Your task to perform on an android device: choose inbox layout in the gmail app Image 0: 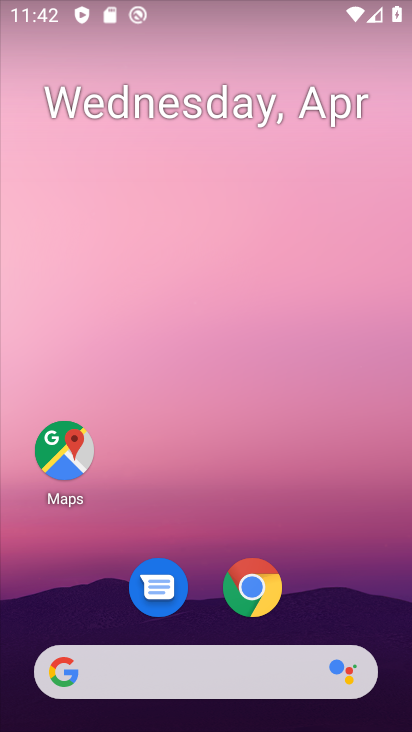
Step 0: drag from (207, 614) to (333, 0)
Your task to perform on an android device: choose inbox layout in the gmail app Image 1: 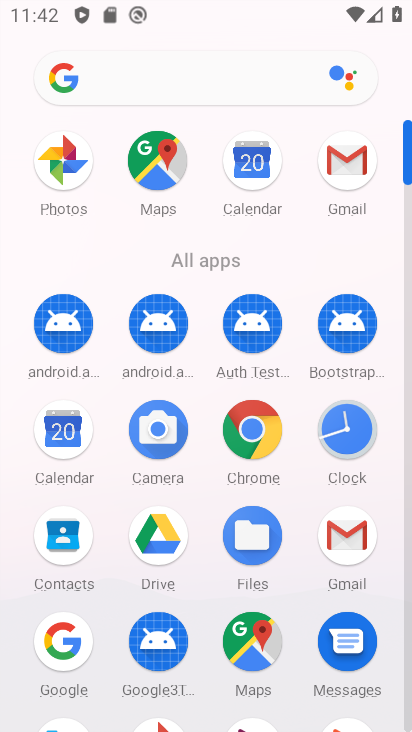
Step 1: click (351, 534)
Your task to perform on an android device: choose inbox layout in the gmail app Image 2: 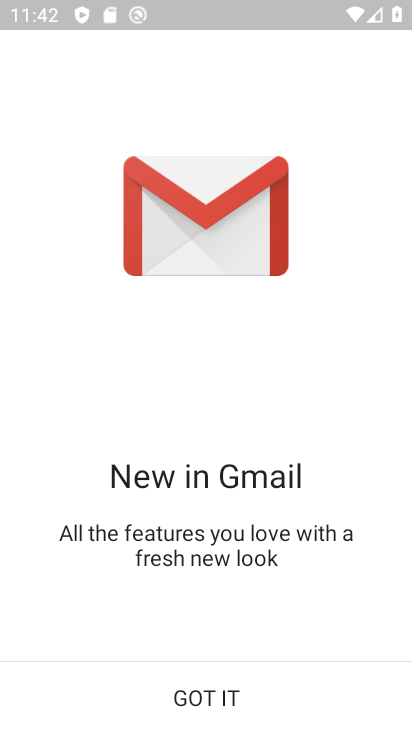
Step 2: click (222, 688)
Your task to perform on an android device: choose inbox layout in the gmail app Image 3: 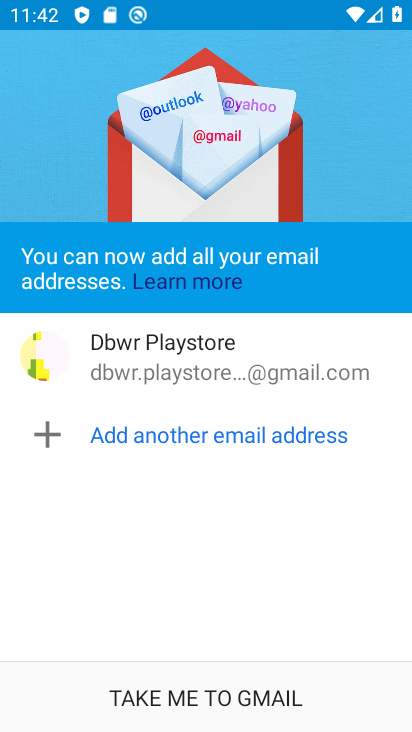
Step 3: click (222, 688)
Your task to perform on an android device: choose inbox layout in the gmail app Image 4: 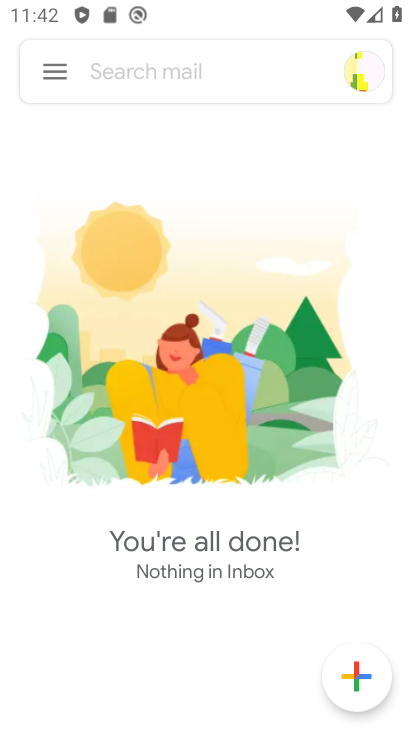
Step 4: click (41, 64)
Your task to perform on an android device: choose inbox layout in the gmail app Image 5: 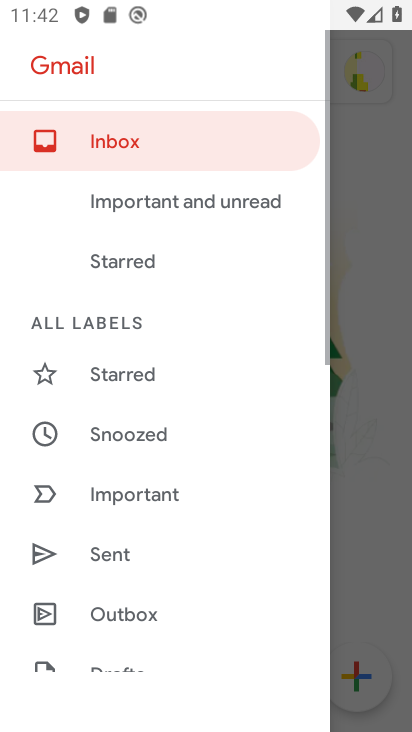
Step 5: drag from (109, 625) to (255, 9)
Your task to perform on an android device: choose inbox layout in the gmail app Image 6: 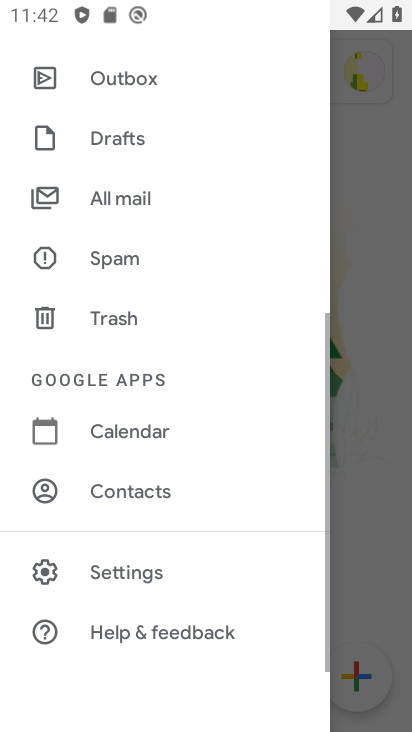
Step 6: click (143, 571)
Your task to perform on an android device: choose inbox layout in the gmail app Image 7: 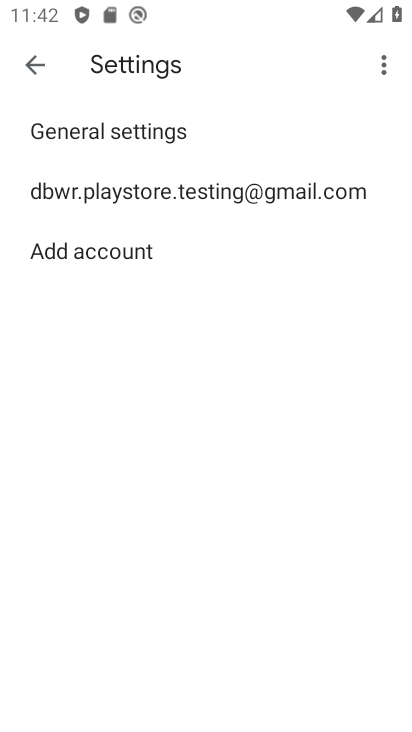
Step 7: click (129, 190)
Your task to perform on an android device: choose inbox layout in the gmail app Image 8: 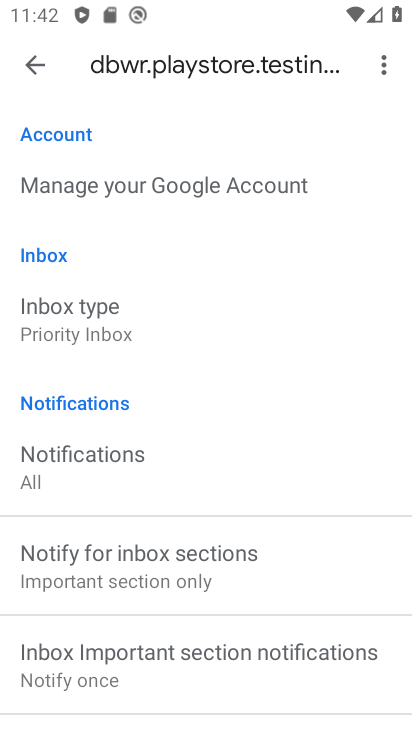
Step 8: click (107, 328)
Your task to perform on an android device: choose inbox layout in the gmail app Image 9: 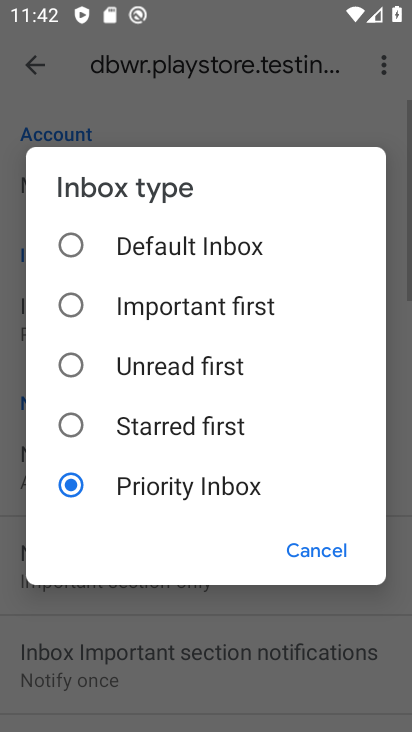
Step 9: click (109, 243)
Your task to perform on an android device: choose inbox layout in the gmail app Image 10: 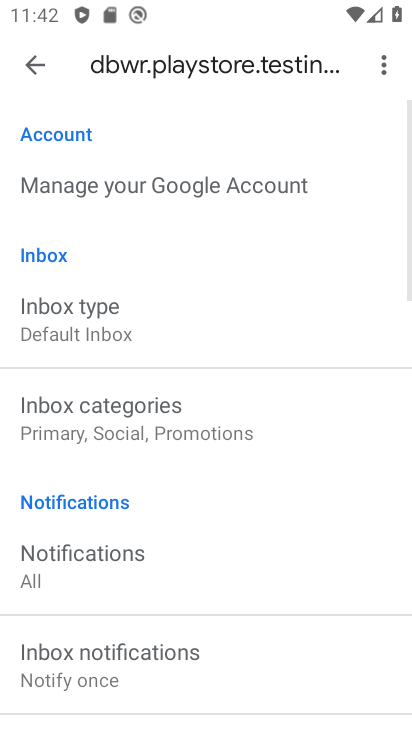
Step 10: task complete